Your task to perform on an android device: open the mobile data screen to see how much data has been used Image 0: 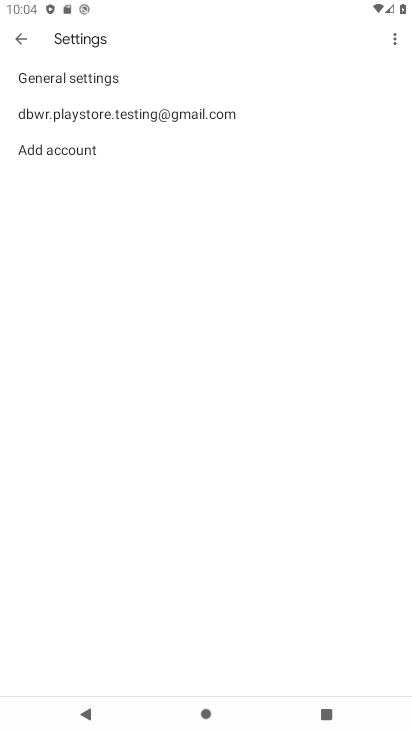
Step 0: press home button
Your task to perform on an android device: open the mobile data screen to see how much data has been used Image 1: 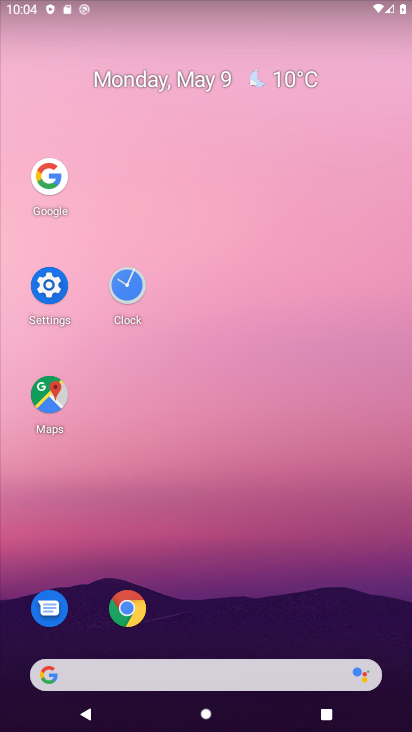
Step 1: click (64, 291)
Your task to perform on an android device: open the mobile data screen to see how much data has been used Image 2: 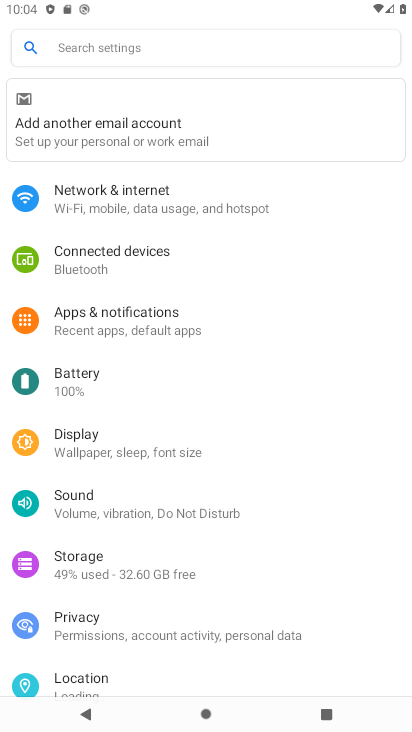
Step 2: click (132, 209)
Your task to perform on an android device: open the mobile data screen to see how much data has been used Image 3: 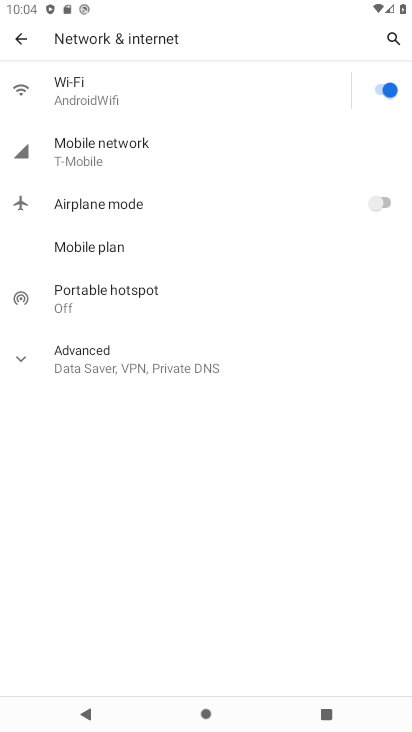
Step 3: click (144, 154)
Your task to perform on an android device: open the mobile data screen to see how much data has been used Image 4: 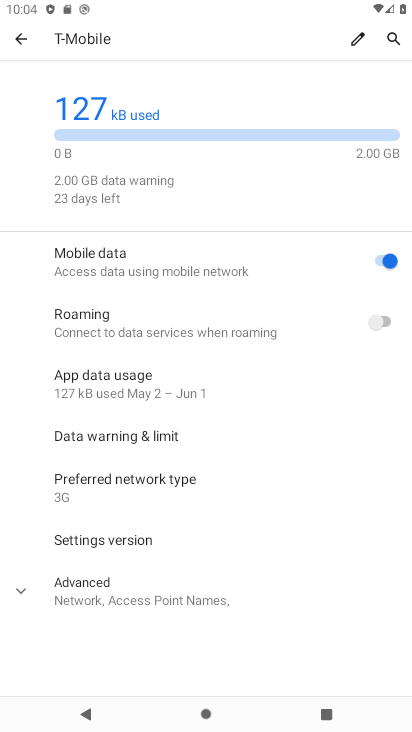
Step 4: click (120, 370)
Your task to perform on an android device: open the mobile data screen to see how much data has been used Image 5: 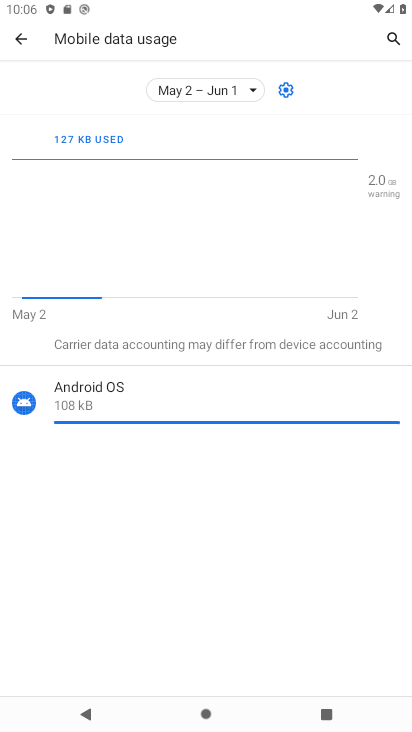
Step 5: task complete